Your task to perform on an android device: search for starred emails in the gmail app Image 0: 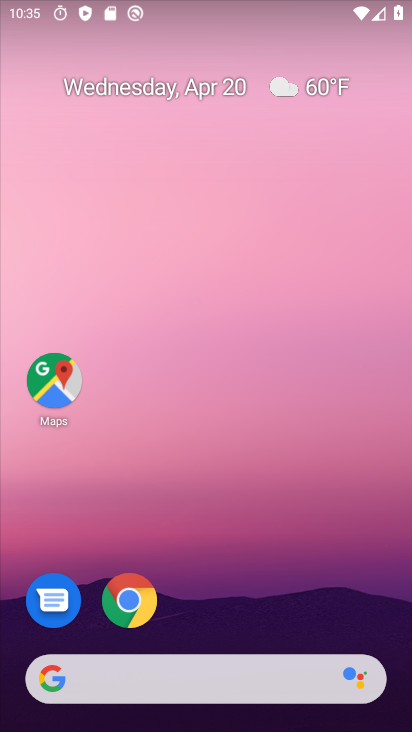
Step 0: drag from (216, 623) to (203, 64)
Your task to perform on an android device: search for starred emails in the gmail app Image 1: 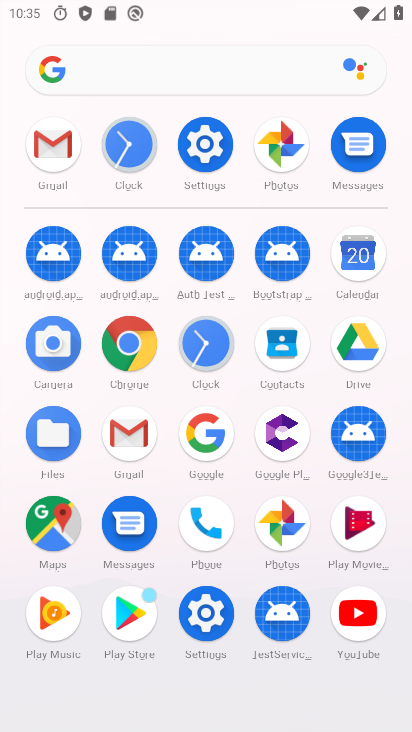
Step 1: click (45, 143)
Your task to perform on an android device: search for starred emails in the gmail app Image 2: 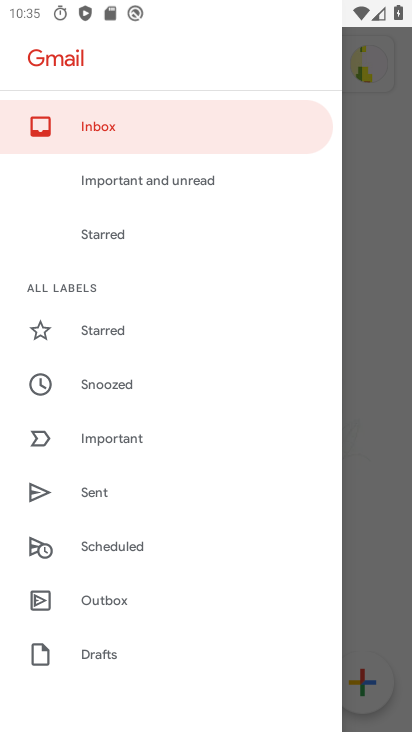
Step 2: click (154, 324)
Your task to perform on an android device: search for starred emails in the gmail app Image 3: 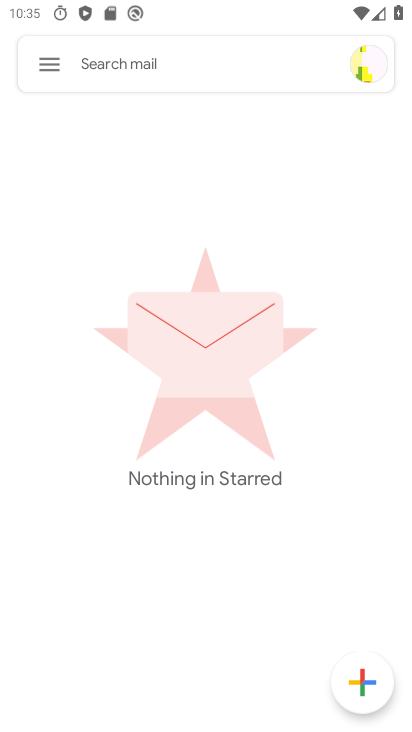
Step 3: task complete